Your task to perform on an android device: Go to location settings Image 0: 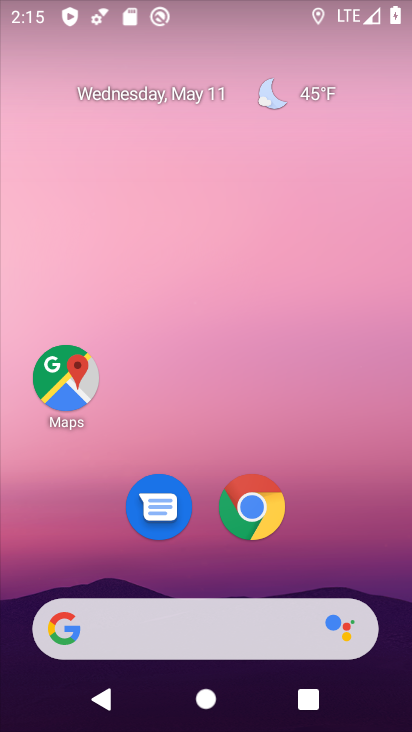
Step 0: drag from (360, 494) to (272, 9)
Your task to perform on an android device: Go to location settings Image 1: 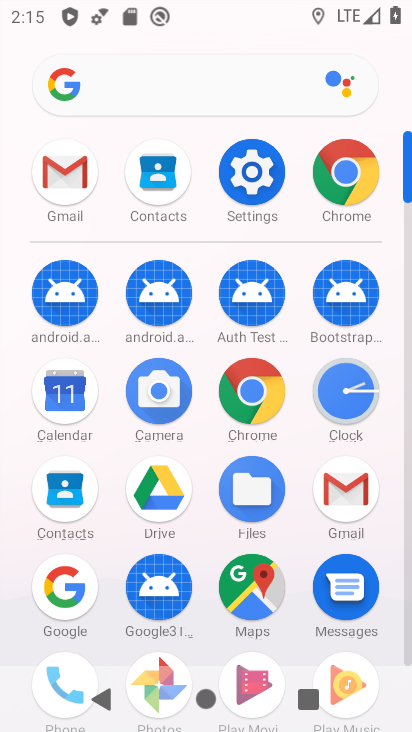
Step 1: drag from (5, 487) to (11, 157)
Your task to perform on an android device: Go to location settings Image 2: 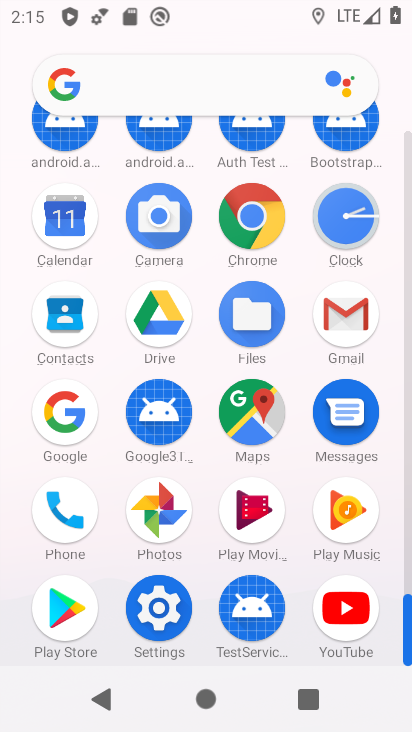
Step 2: drag from (13, 169) to (13, 395)
Your task to perform on an android device: Go to location settings Image 3: 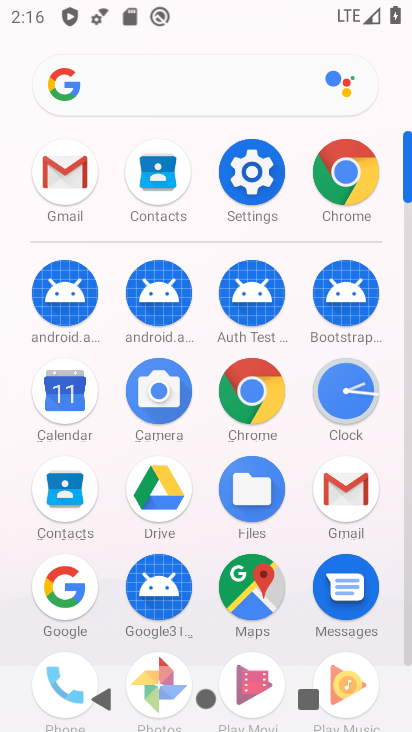
Step 3: click (248, 163)
Your task to perform on an android device: Go to location settings Image 4: 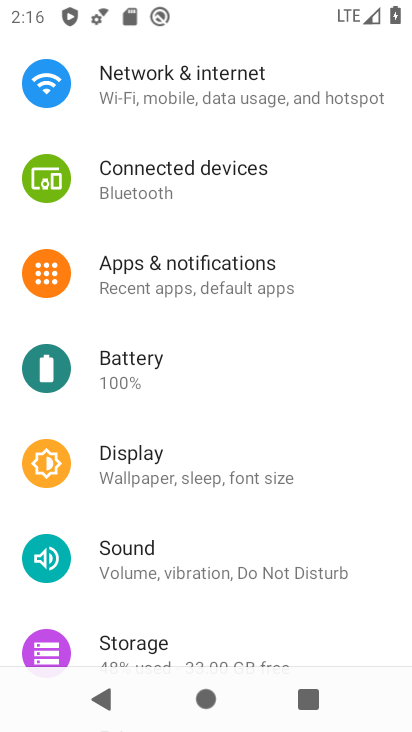
Step 4: drag from (340, 485) to (277, 137)
Your task to perform on an android device: Go to location settings Image 5: 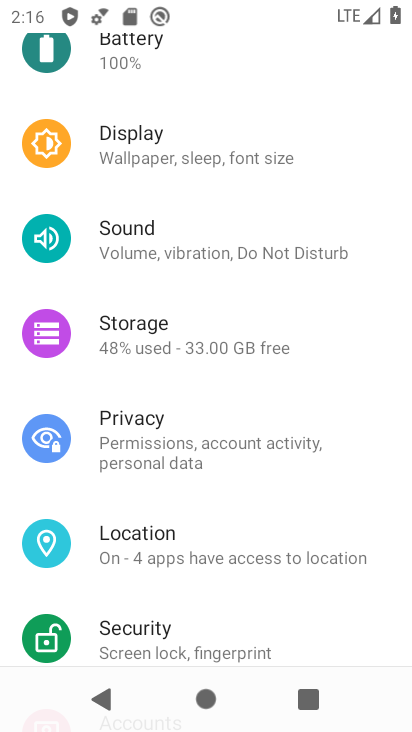
Step 5: drag from (222, 516) to (244, 167)
Your task to perform on an android device: Go to location settings Image 6: 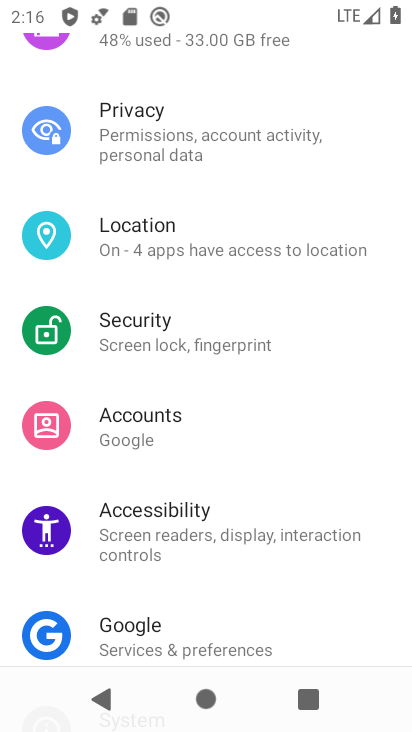
Step 6: click (208, 243)
Your task to perform on an android device: Go to location settings Image 7: 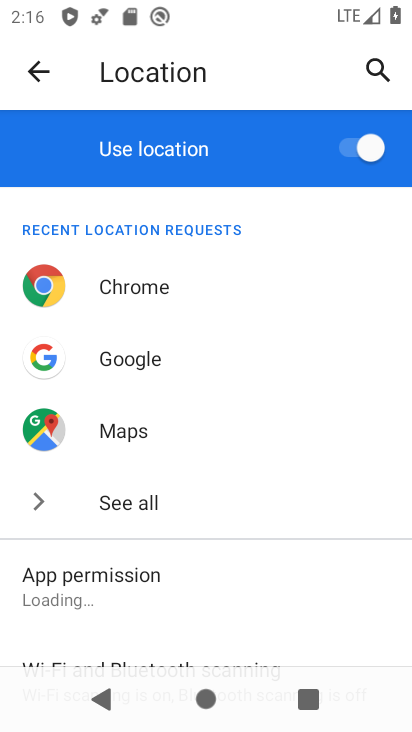
Step 7: drag from (206, 528) to (206, 197)
Your task to perform on an android device: Go to location settings Image 8: 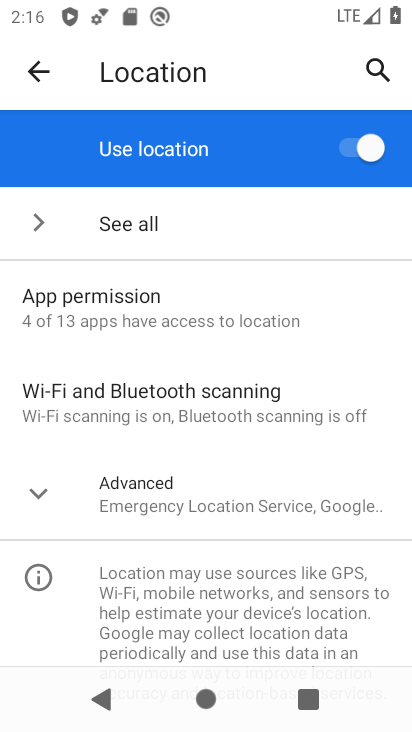
Step 8: drag from (222, 544) to (234, 206)
Your task to perform on an android device: Go to location settings Image 9: 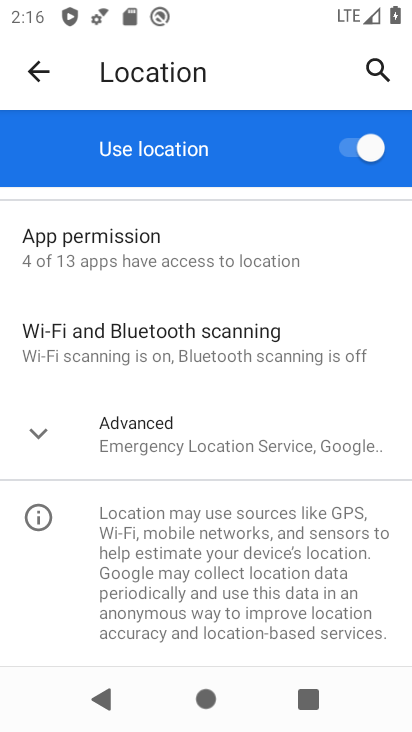
Step 9: drag from (187, 545) to (196, 351)
Your task to perform on an android device: Go to location settings Image 10: 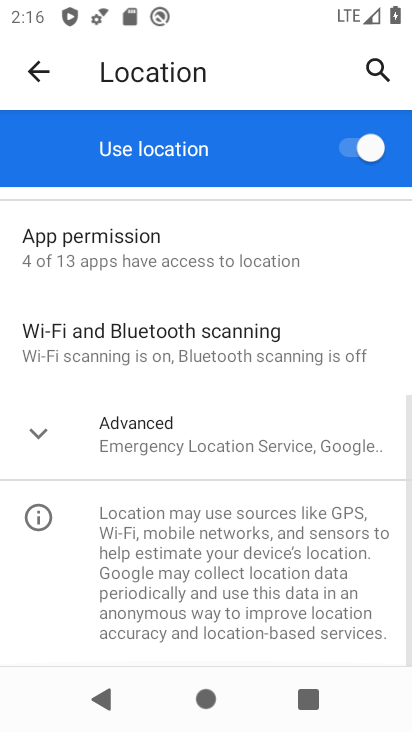
Step 10: click (37, 421)
Your task to perform on an android device: Go to location settings Image 11: 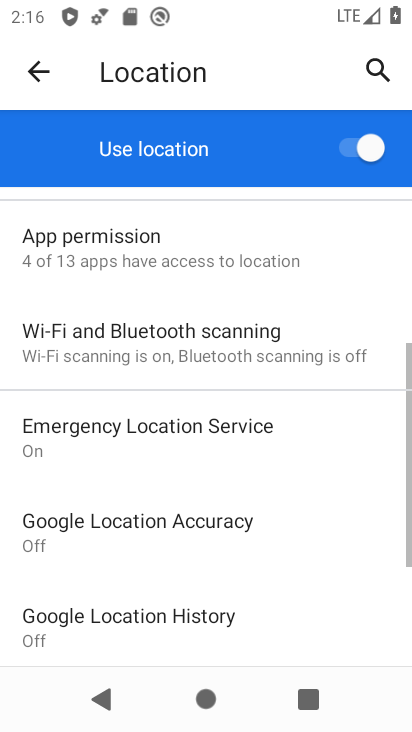
Step 11: task complete